Your task to perform on an android device: search for starred emails in the gmail app Image 0: 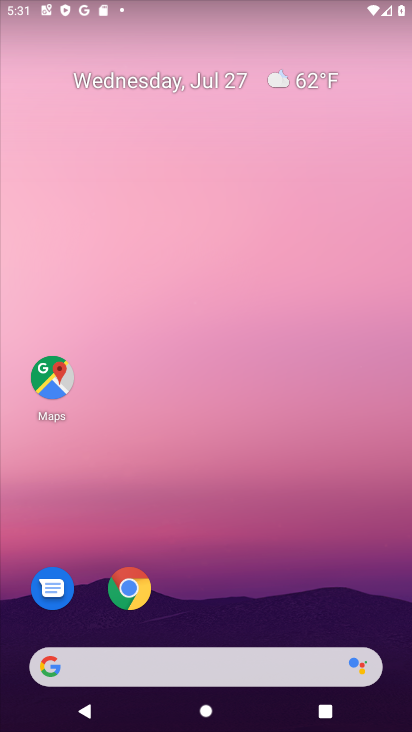
Step 0: drag from (182, 610) to (253, 0)
Your task to perform on an android device: search for starred emails in the gmail app Image 1: 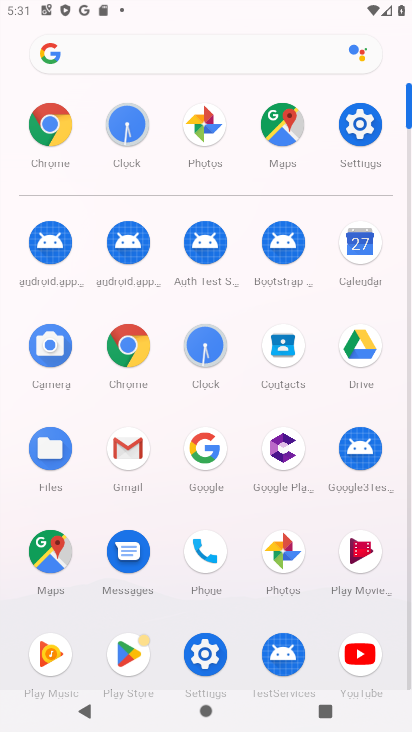
Step 1: click (129, 446)
Your task to perform on an android device: search for starred emails in the gmail app Image 2: 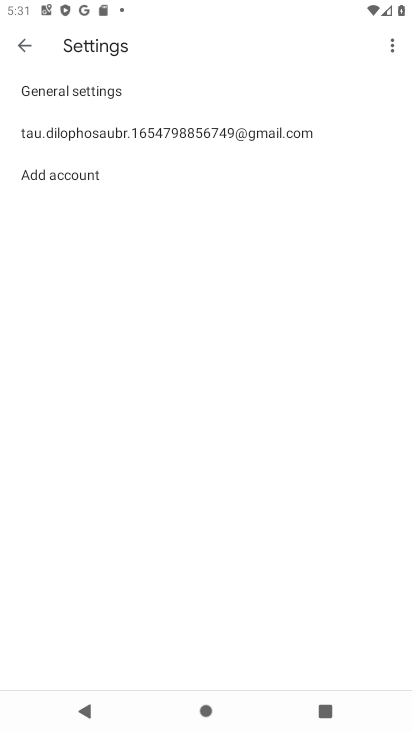
Step 2: click (21, 42)
Your task to perform on an android device: search for starred emails in the gmail app Image 3: 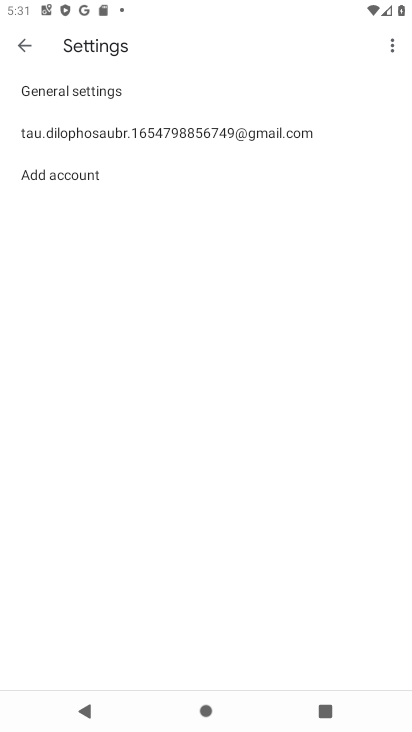
Step 3: click (21, 42)
Your task to perform on an android device: search for starred emails in the gmail app Image 4: 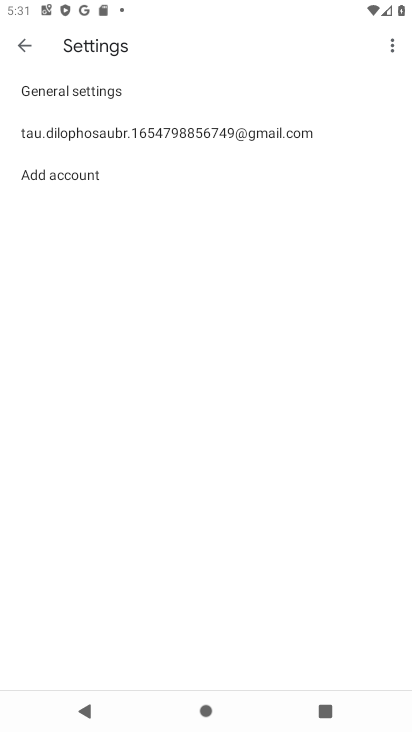
Step 4: click (21, 42)
Your task to perform on an android device: search for starred emails in the gmail app Image 5: 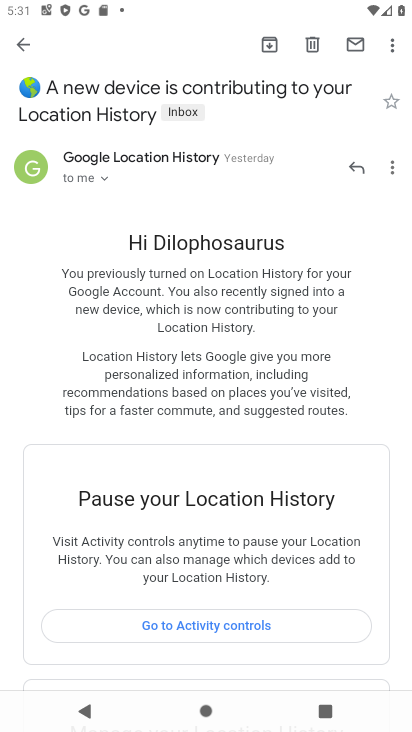
Step 5: click (21, 42)
Your task to perform on an android device: search for starred emails in the gmail app Image 6: 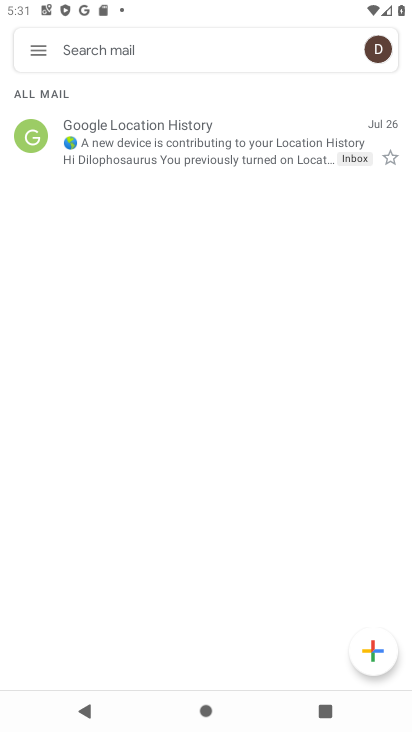
Step 6: click (40, 54)
Your task to perform on an android device: search for starred emails in the gmail app Image 7: 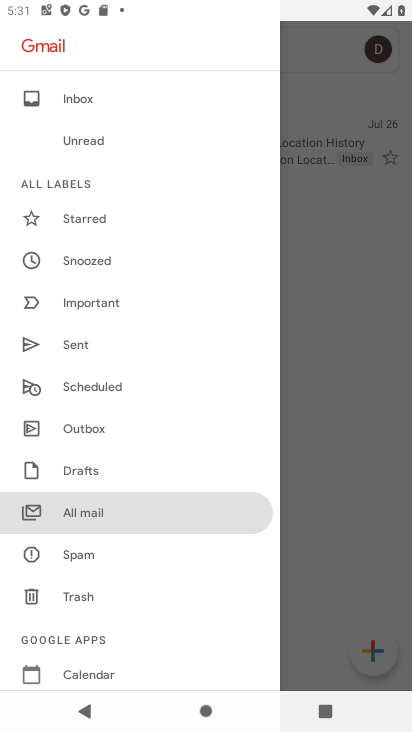
Step 7: click (99, 216)
Your task to perform on an android device: search for starred emails in the gmail app Image 8: 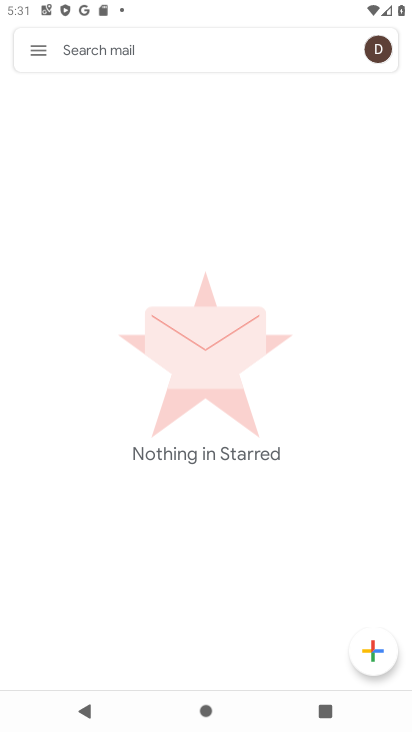
Step 8: task complete